Your task to perform on an android device: open a new tab in the chrome app Image 0: 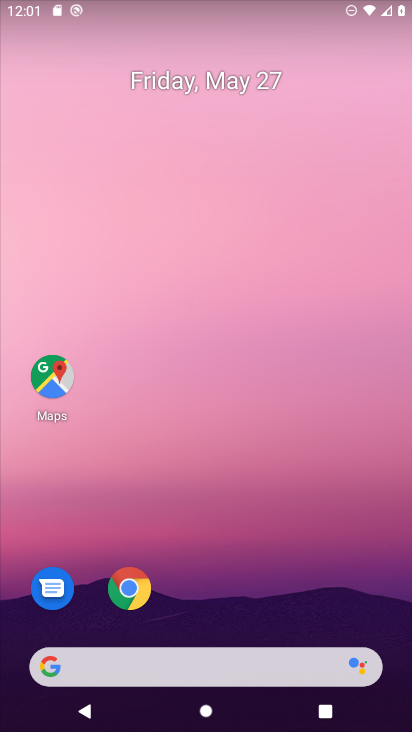
Step 0: click (127, 587)
Your task to perform on an android device: open a new tab in the chrome app Image 1: 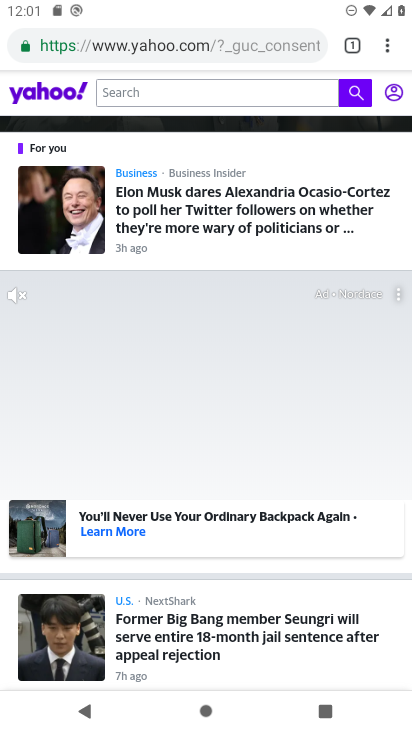
Step 1: click (390, 45)
Your task to perform on an android device: open a new tab in the chrome app Image 2: 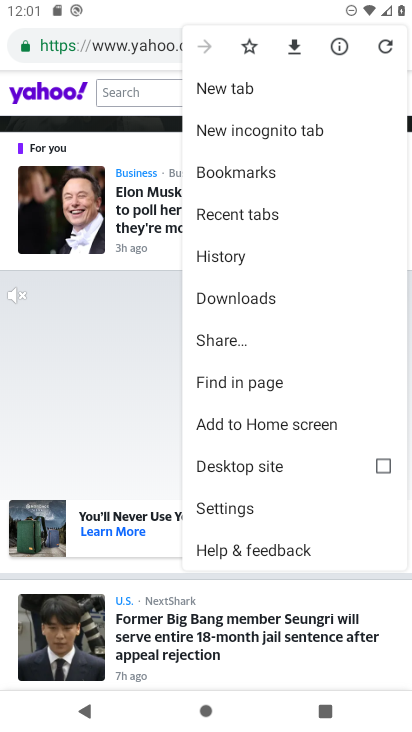
Step 2: click (228, 85)
Your task to perform on an android device: open a new tab in the chrome app Image 3: 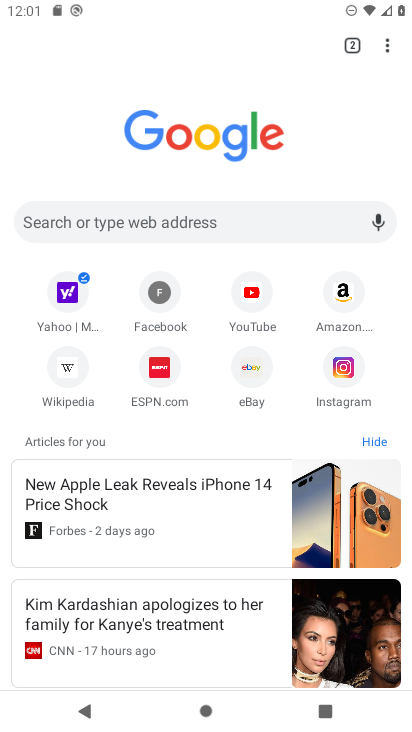
Step 3: task complete